Your task to perform on an android device: Show me popular games on the Play Store Image 0: 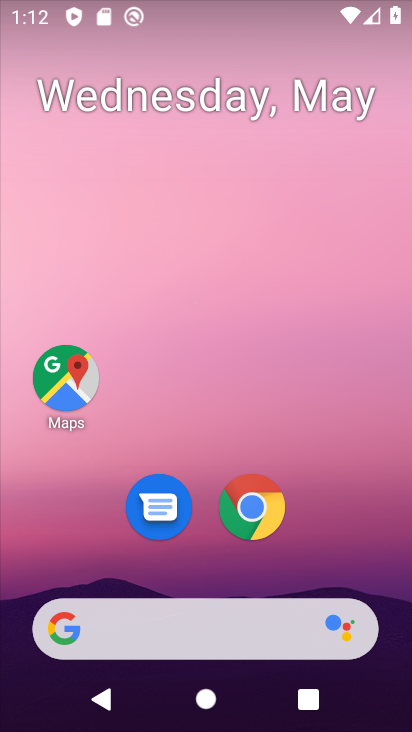
Step 0: drag from (377, 561) to (273, 152)
Your task to perform on an android device: Show me popular games on the Play Store Image 1: 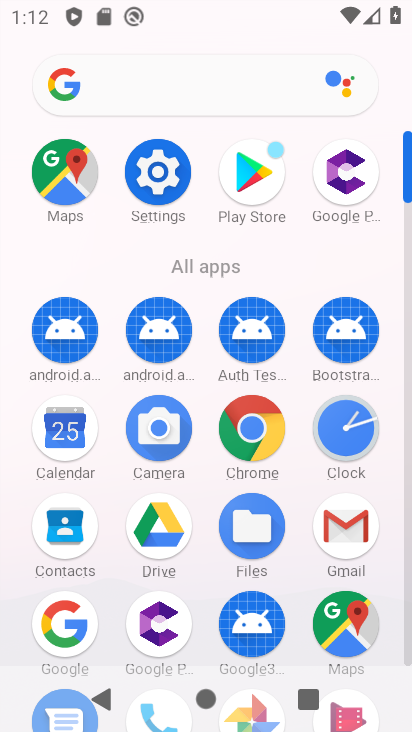
Step 1: click (411, 638)
Your task to perform on an android device: Show me popular games on the Play Store Image 2: 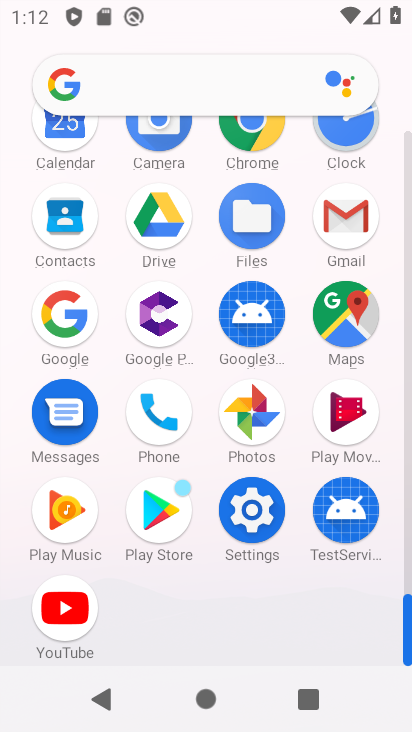
Step 2: click (176, 531)
Your task to perform on an android device: Show me popular games on the Play Store Image 3: 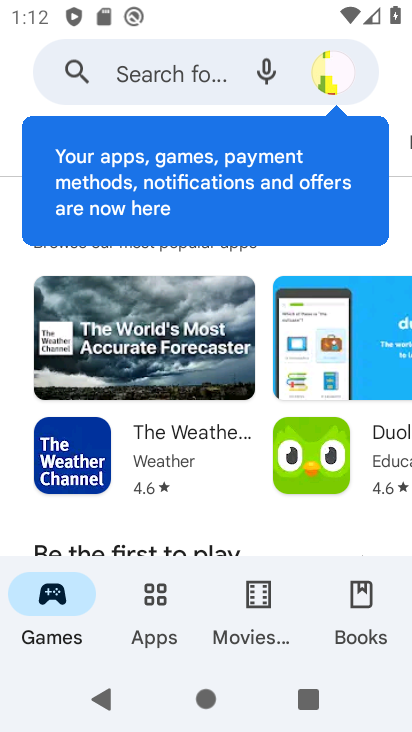
Step 3: click (262, 514)
Your task to perform on an android device: Show me popular games on the Play Store Image 4: 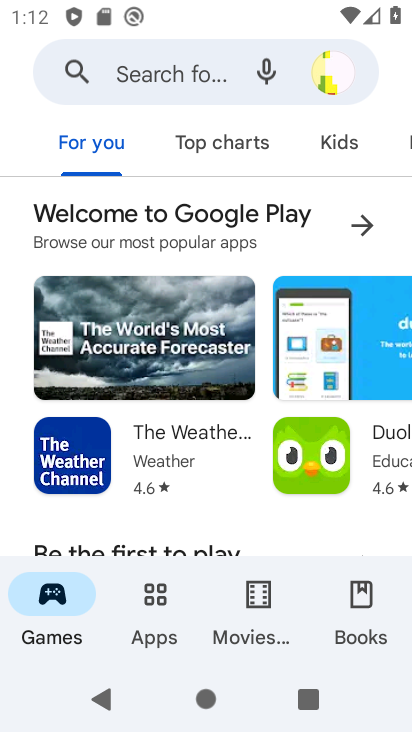
Step 4: click (233, 222)
Your task to perform on an android device: Show me popular games on the Play Store Image 5: 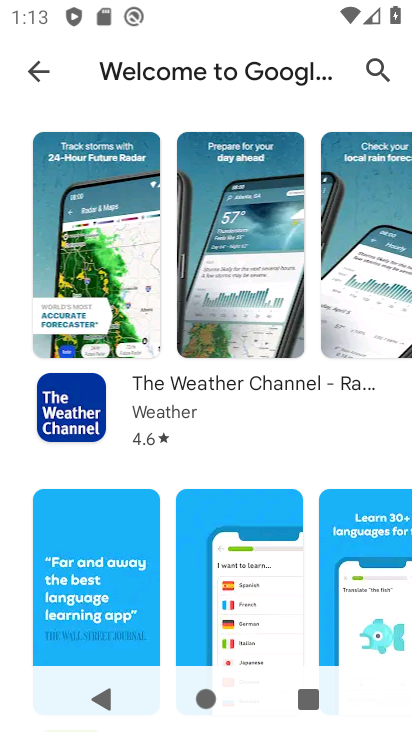
Step 5: task complete